Your task to perform on an android device: What is the recent news? Image 0: 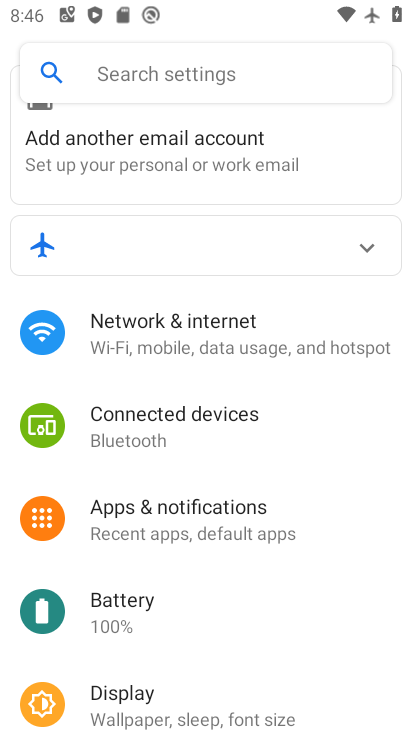
Step 0: press home button
Your task to perform on an android device: What is the recent news? Image 1: 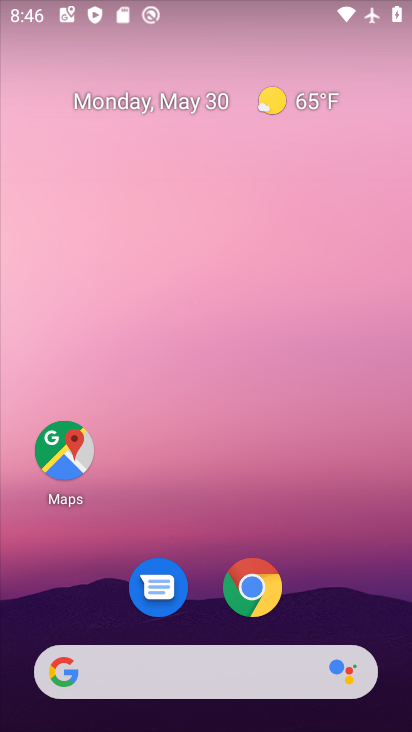
Step 1: click (73, 673)
Your task to perform on an android device: What is the recent news? Image 2: 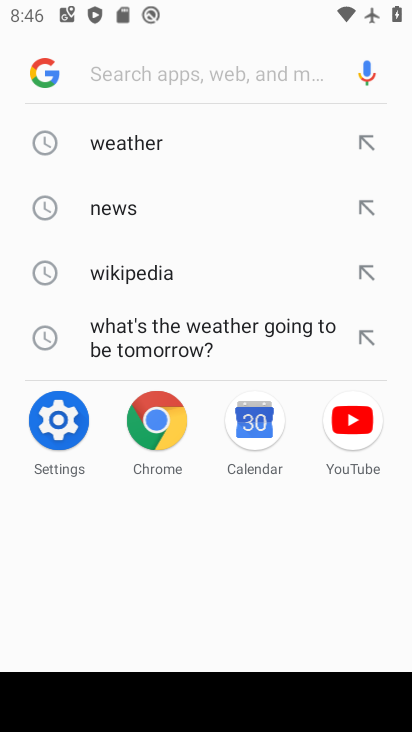
Step 2: click (110, 214)
Your task to perform on an android device: What is the recent news? Image 3: 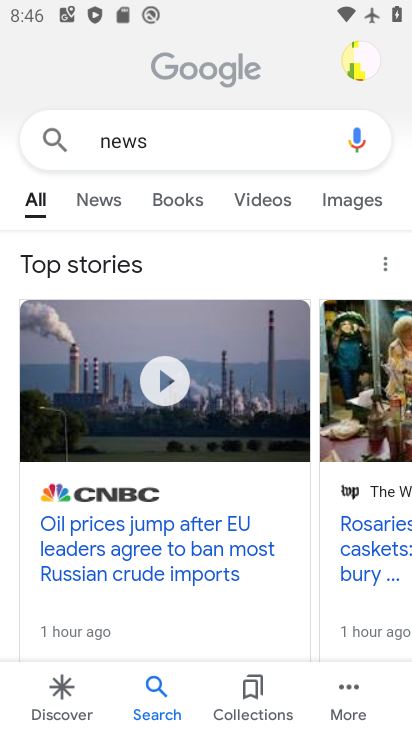
Step 3: click (102, 195)
Your task to perform on an android device: What is the recent news? Image 4: 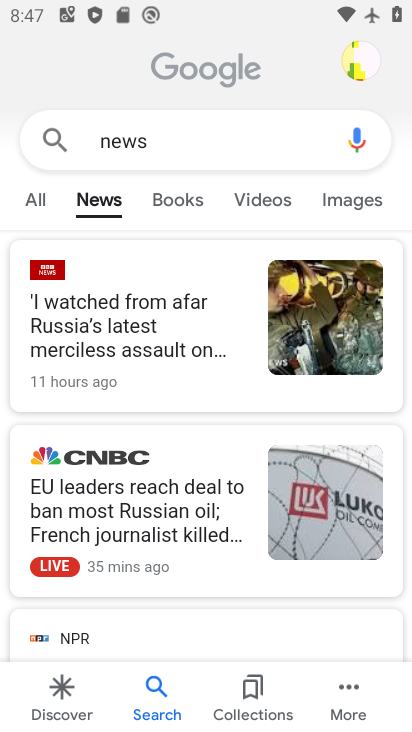
Step 4: task complete